Your task to perform on an android device: empty trash in the gmail app Image 0: 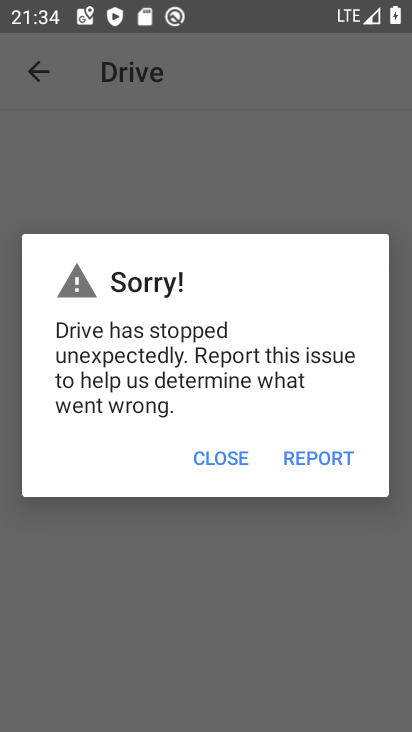
Step 0: press home button
Your task to perform on an android device: empty trash in the gmail app Image 1: 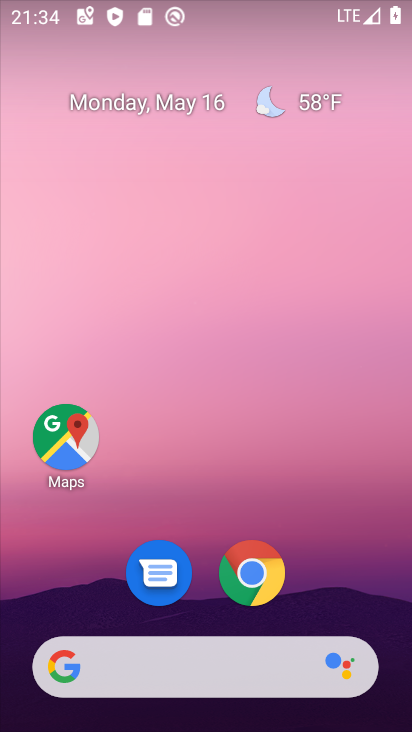
Step 1: drag from (232, 731) to (226, 132)
Your task to perform on an android device: empty trash in the gmail app Image 2: 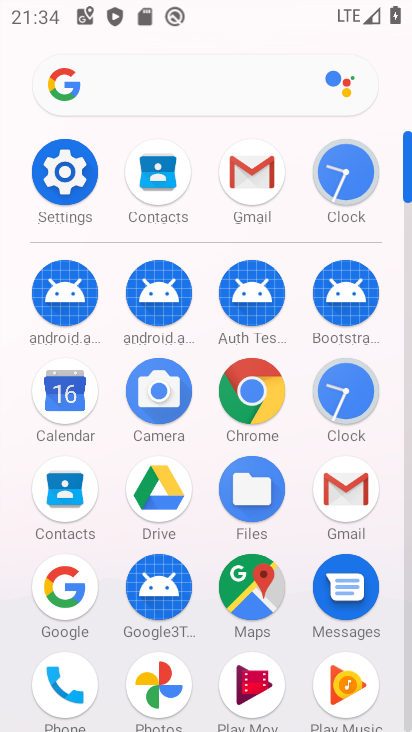
Step 2: click (346, 489)
Your task to perform on an android device: empty trash in the gmail app Image 3: 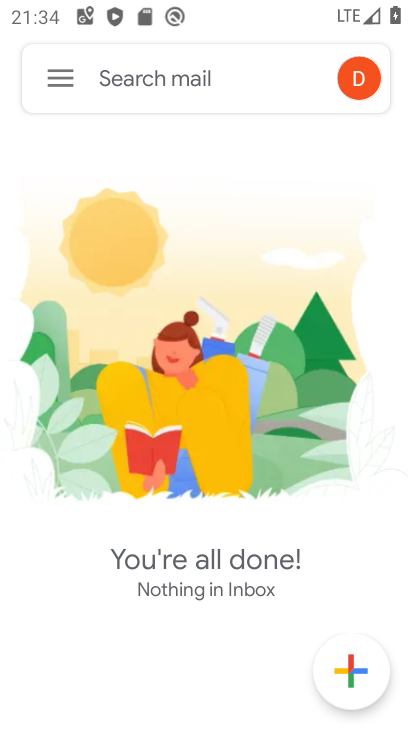
Step 3: click (59, 72)
Your task to perform on an android device: empty trash in the gmail app Image 4: 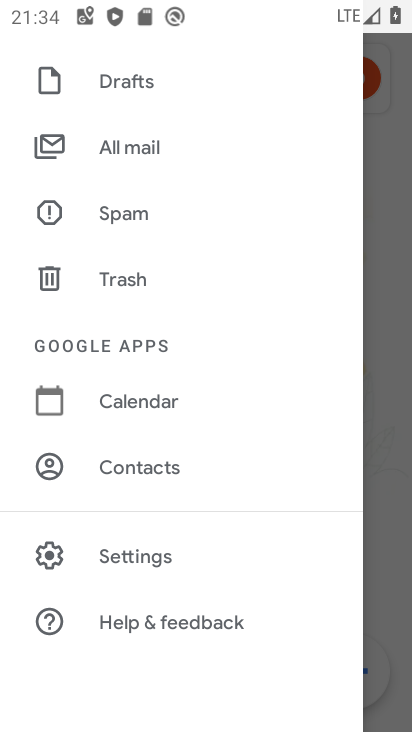
Step 4: click (120, 285)
Your task to perform on an android device: empty trash in the gmail app Image 5: 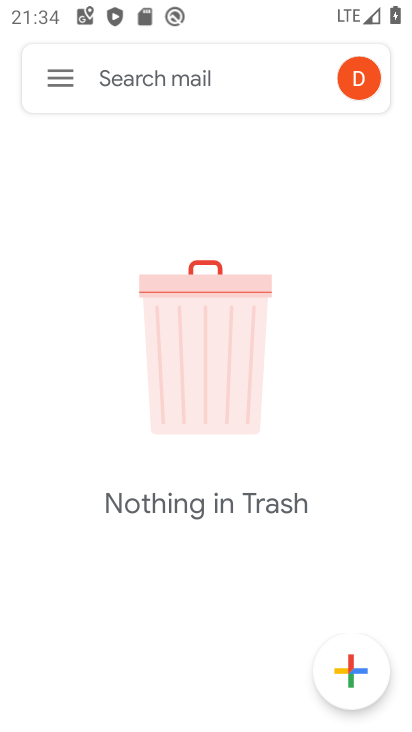
Step 5: task complete